Your task to perform on an android device: Play the last video I watched on Youtube Image 0: 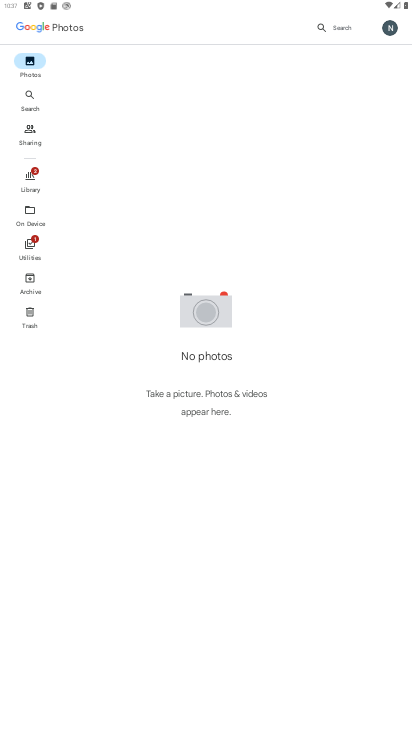
Step 0: press home button
Your task to perform on an android device: Play the last video I watched on Youtube Image 1: 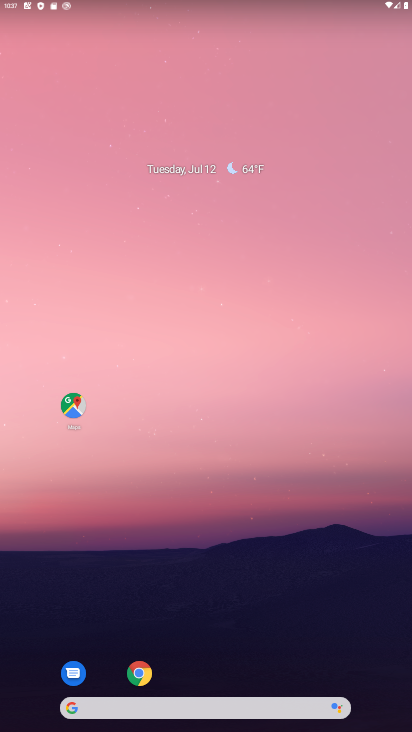
Step 1: drag from (253, 602) to (243, 185)
Your task to perform on an android device: Play the last video I watched on Youtube Image 2: 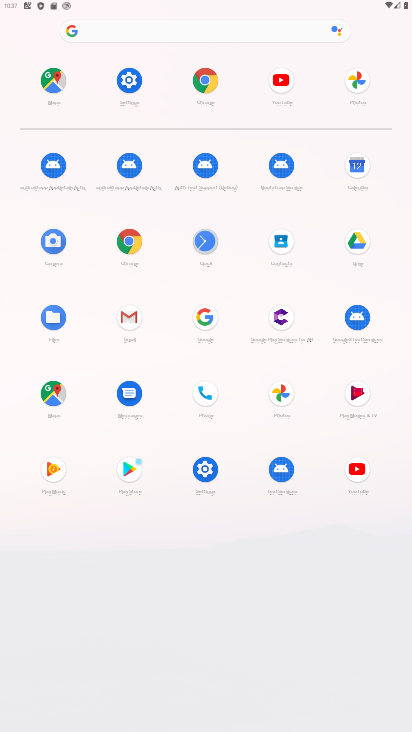
Step 2: click (277, 75)
Your task to perform on an android device: Play the last video I watched on Youtube Image 3: 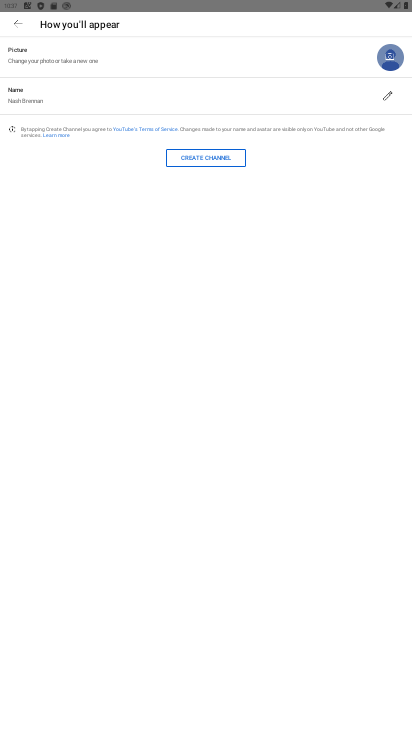
Step 3: click (19, 28)
Your task to perform on an android device: Play the last video I watched on Youtube Image 4: 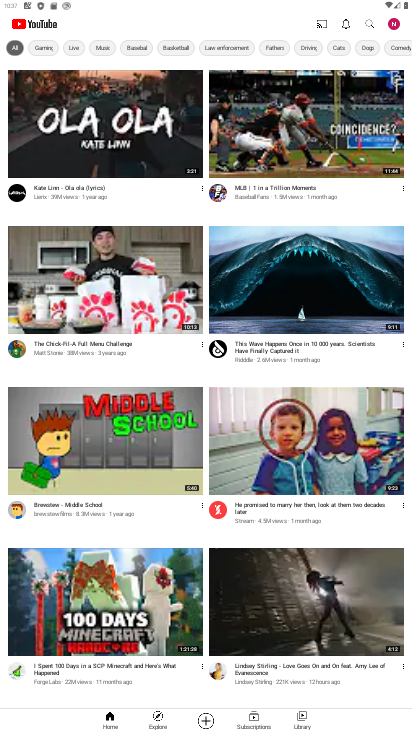
Step 4: click (309, 714)
Your task to perform on an android device: Play the last video I watched on Youtube Image 5: 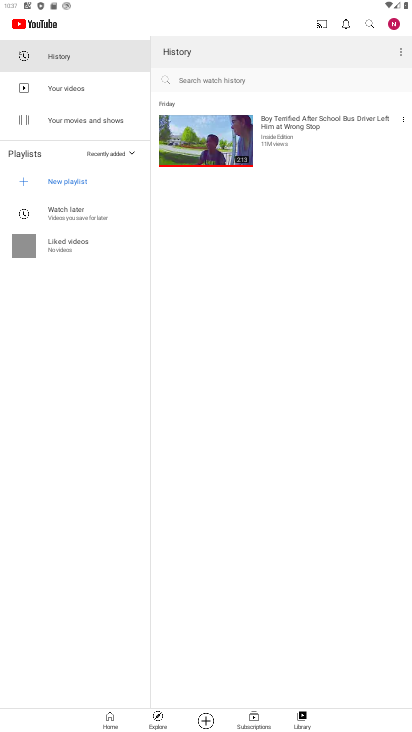
Step 5: click (193, 156)
Your task to perform on an android device: Play the last video I watched on Youtube Image 6: 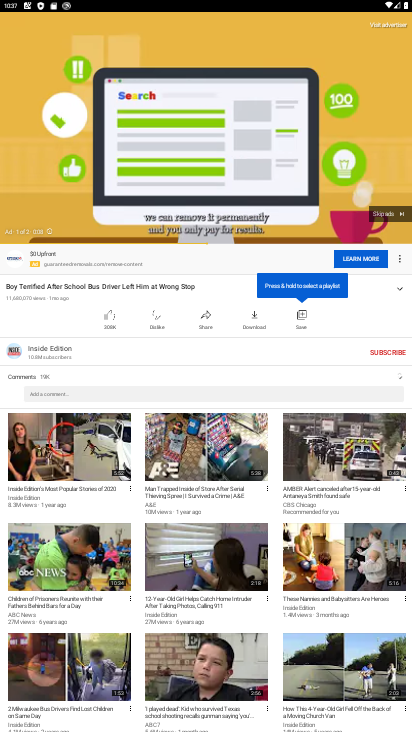
Step 6: task complete